Your task to perform on an android device: Toggle the flashlight Image 0: 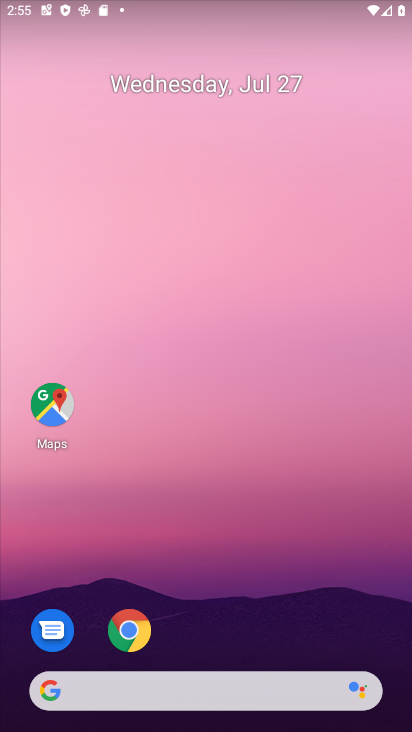
Step 0: drag from (389, 705) to (365, 196)
Your task to perform on an android device: Toggle the flashlight Image 1: 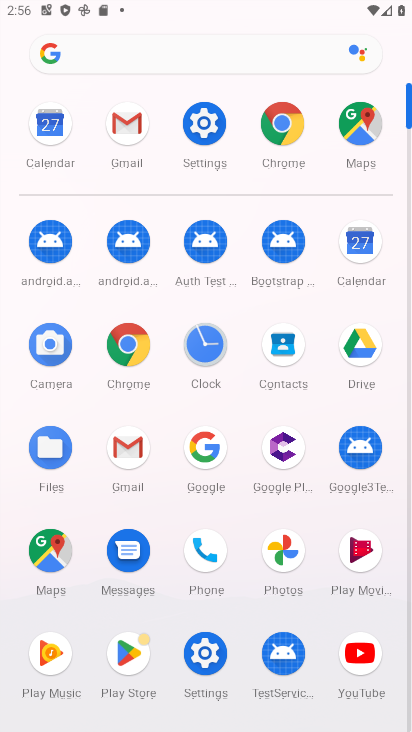
Step 1: click (213, 131)
Your task to perform on an android device: Toggle the flashlight Image 2: 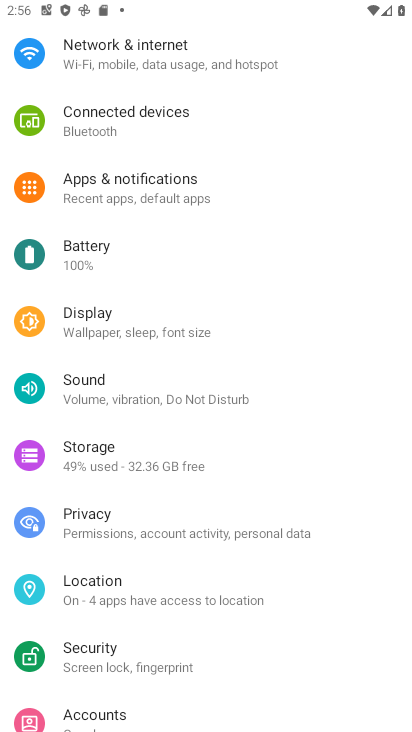
Step 2: click (89, 317)
Your task to perform on an android device: Toggle the flashlight Image 3: 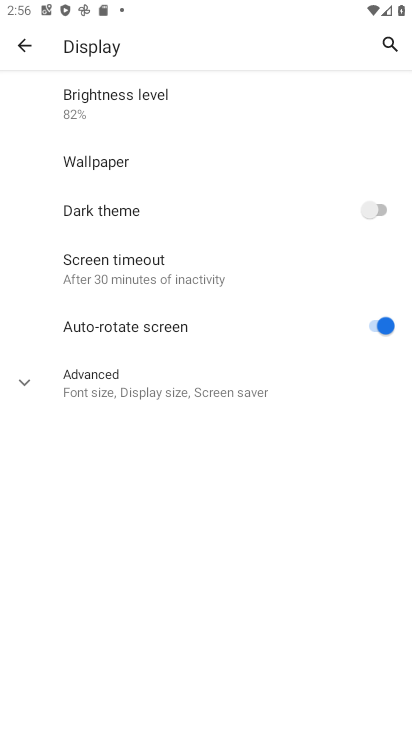
Step 3: click (24, 378)
Your task to perform on an android device: Toggle the flashlight Image 4: 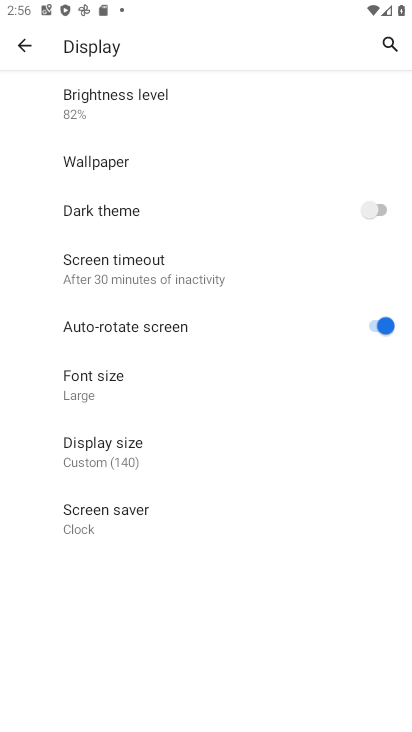
Step 4: task complete